Your task to perform on an android device: Go to Reddit.com Image 0: 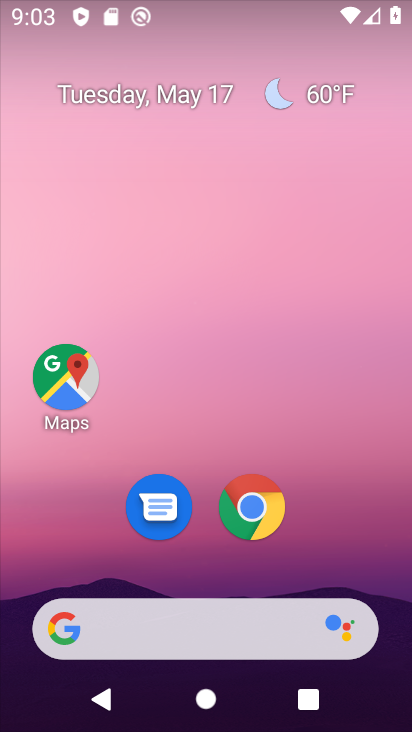
Step 0: click (181, 637)
Your task to perform on an android device: Go to Reddit.com Image 1: 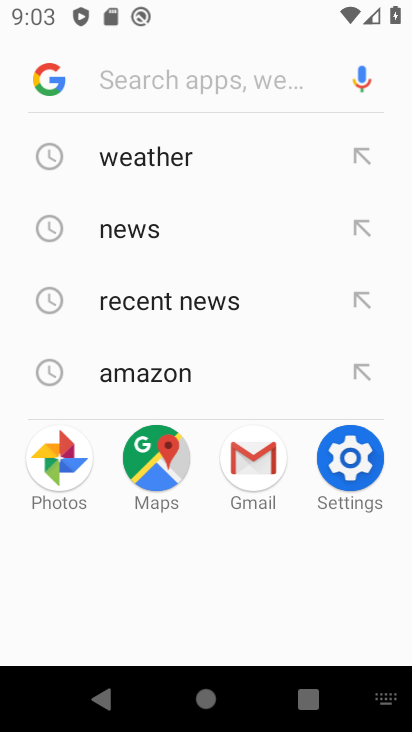
Step 1: type "Reddit.com"
Your task to perform on an android device: Go to Reddit.com Image 2: 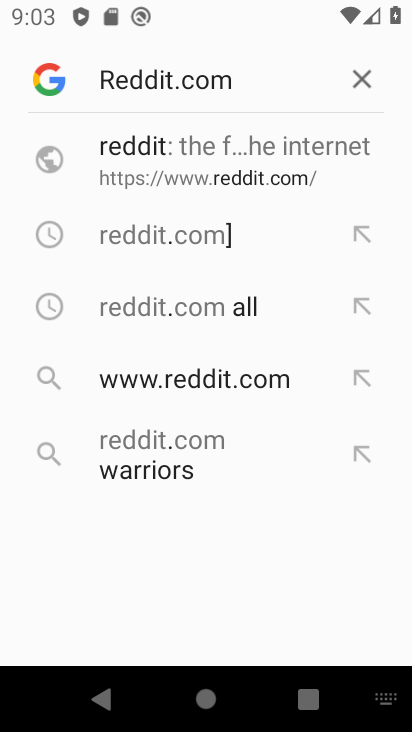
Step 2: click (146, 177)
Your task to perform on an android device: Go to Reddit.com Image 3: 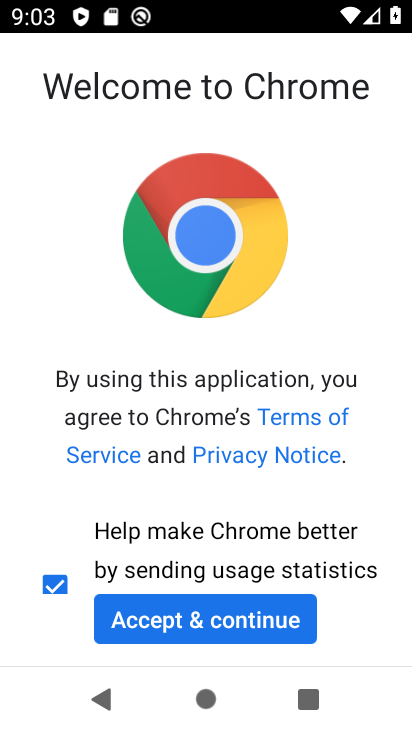
Step 3: click (178, 616)
Your task to perform on an android device: Go to Reddit.com Image 4: 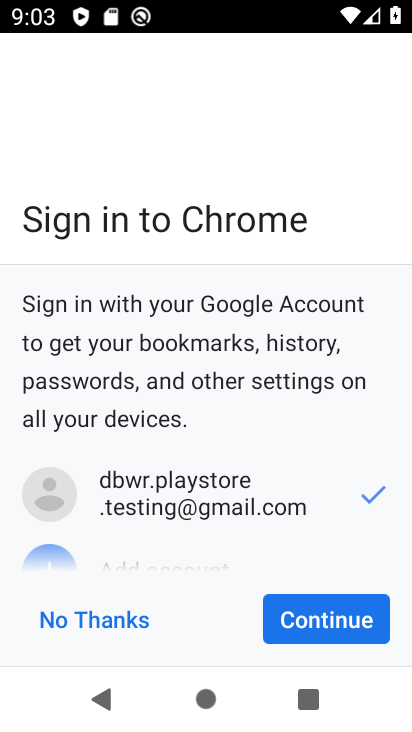
Step 4: click (352, 621)
Your task to perform on an android device: Go to Reddit.com Image 5: 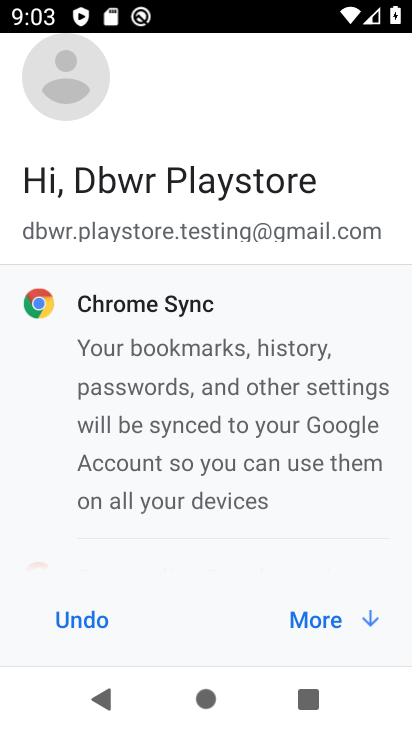
Step 5: click (352, 621)
Your task to perform on an android device: Go to Reddit.com Image 6: 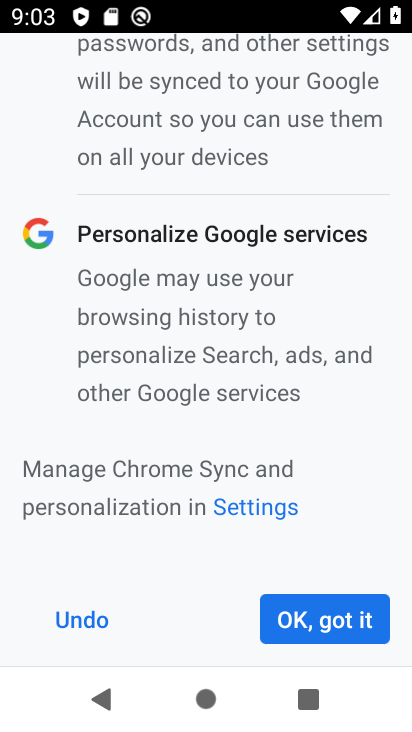
Step 6: click (348, 622)
Your task to perform on an android device: Go to Reddit.com Image 7: 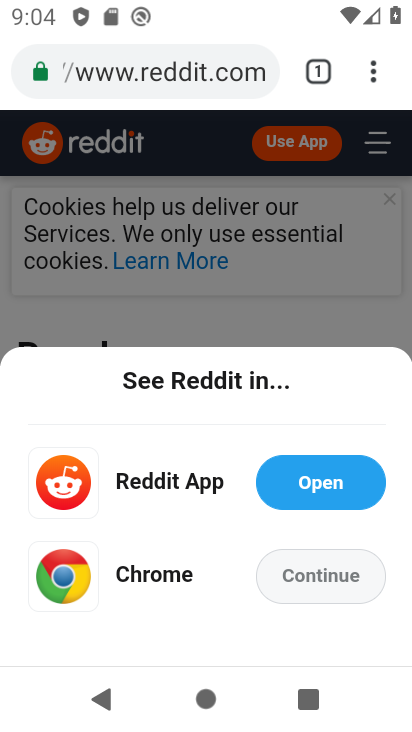
Step 7: click (348, 582)
Your task to perform on an android device: Go to Reddit.com Image 8: 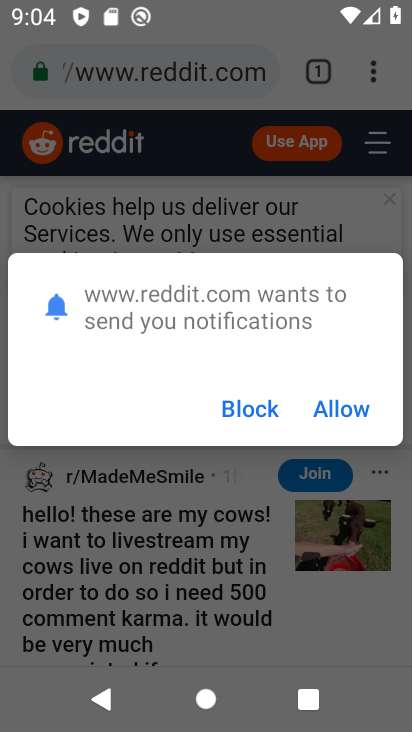
Step 8: click (336, 416)
Your task to perform on an android device: Go to Reddit.com Image 9: 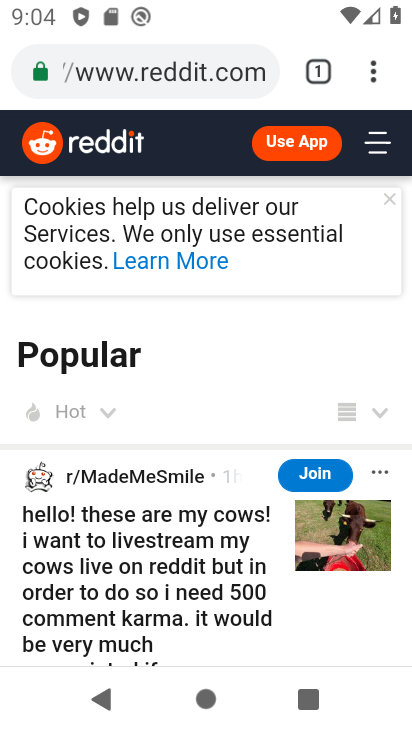
Step 9: task complete